Your task to perform on an android device: Go to Maps Image 0: 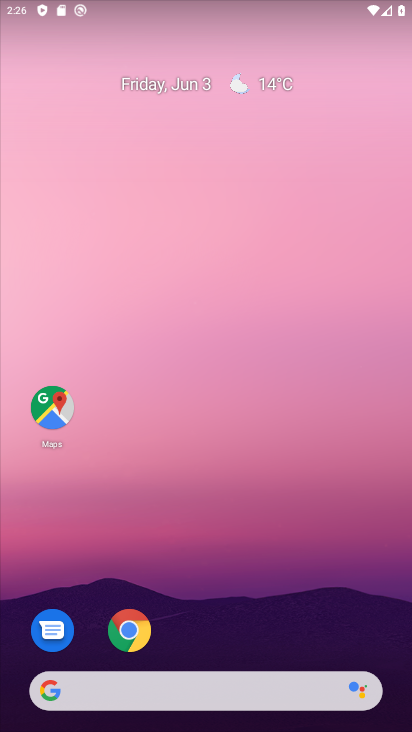
Step 0: click (61, 414)
Your task to perform on an android device: Go to Maps Image 1: 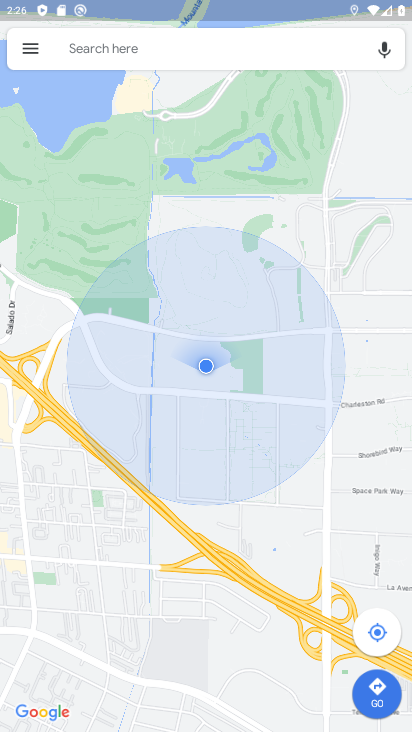
Step 1: task complete